Your task to perform on an android device: turn on airplane mode Image 0: 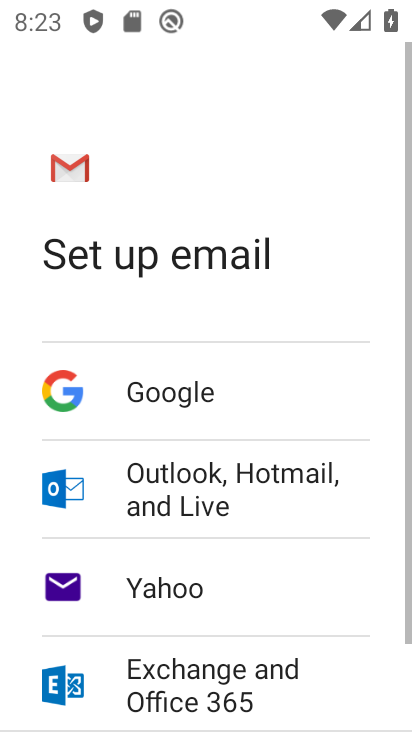
Step 0: press home button
Your task to perform on an android device: turn on airplane mode Image 1: 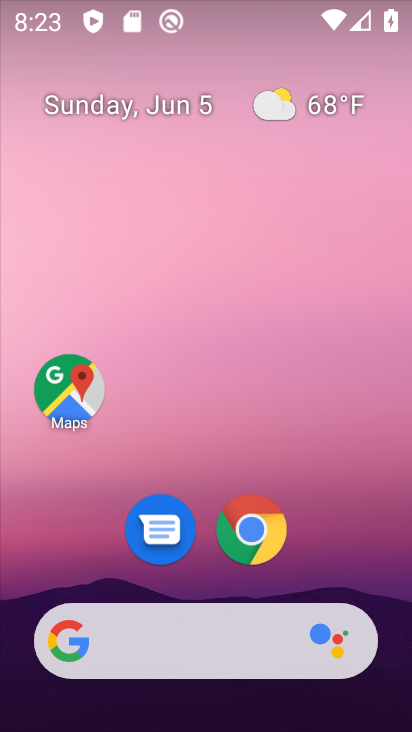
Step 1: drag from (252, 699) to (263, 15)
Your task to perform on an android device: turn on airplane mode Image 2: 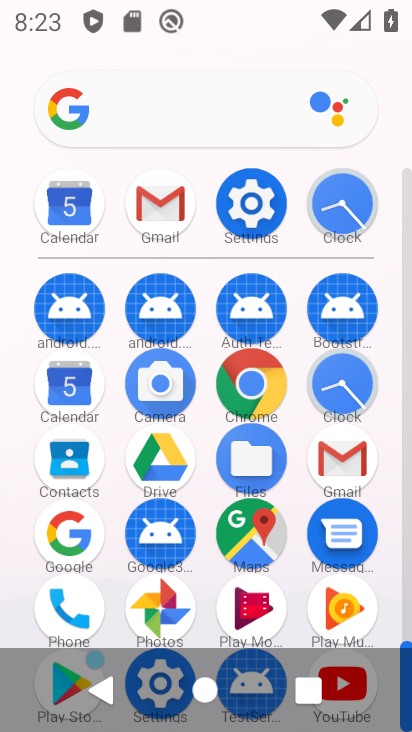
Step 2: click (277, 191)
Your task to perform on an android device: turn on airplane mode Image 3: 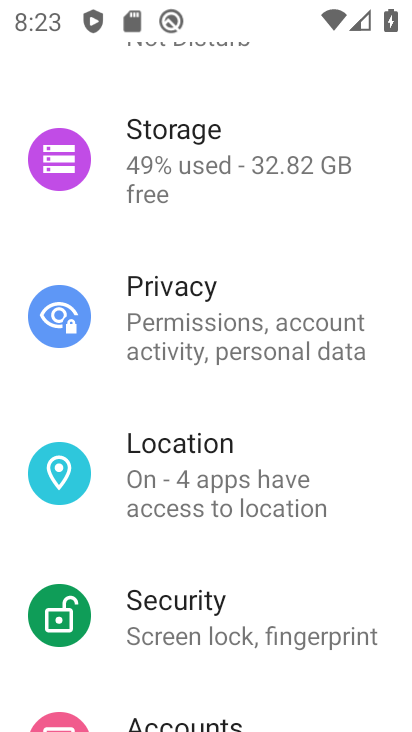
Step 3: drag from (335, 121) to (352, 639)
Your task to perform on an android device: turn on airplane mode Image 4: 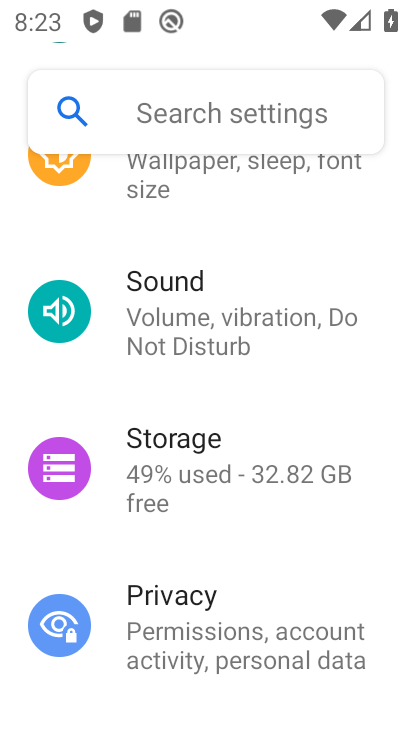
Step 4: drag from (334, 249) to (295, 723)
Your task to perform on an android device: turn on airplane mode Image 5: 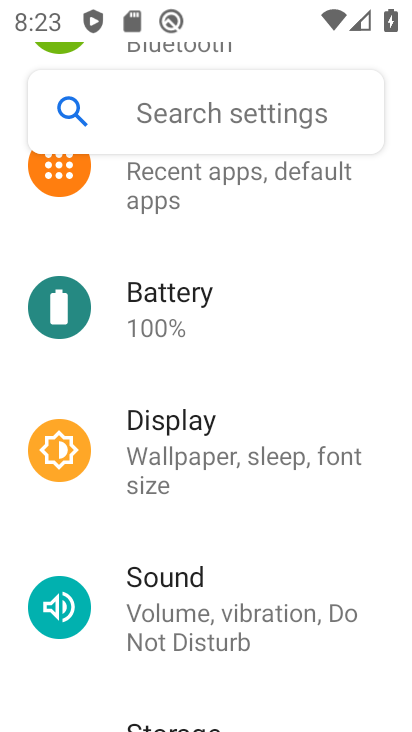
Step 5: drag from (284, 243) to (199, 655)
Your task to perform on an android device: turn on airplane mode Image 6: 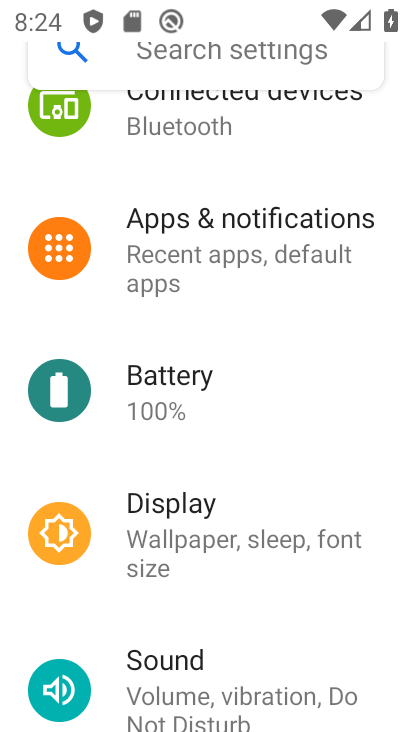
Step 6: drag from (303, 162) to (331, 659)
Your task to perform on an android device: turn on airplane mode Image 7: 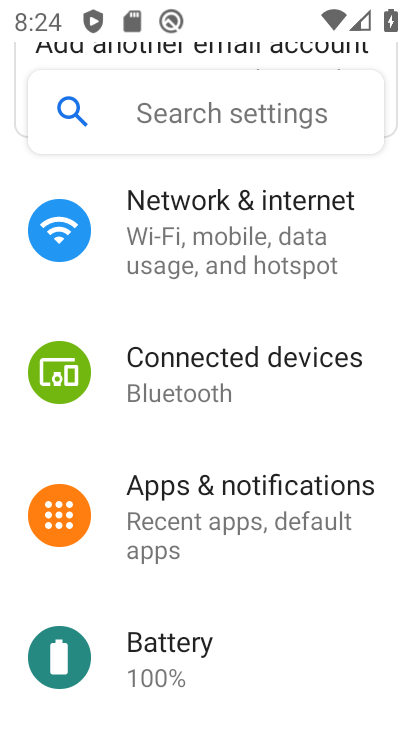
Step 7: click (291, 233)
Your task to perform on an android device: turn on airplane mode Image 8: 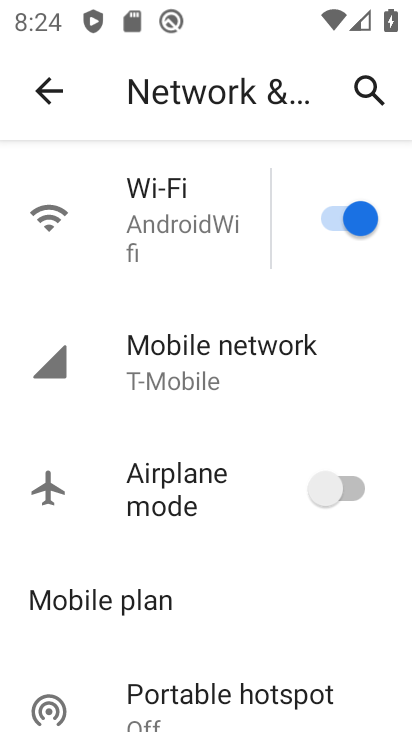
Step 8: click (341, 491)
Your task to perform on an android device: turn on airplane mode Image 9: 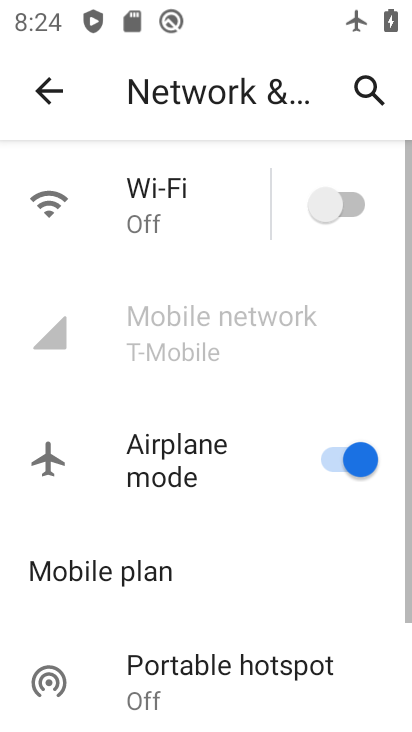
Step 9: task complete